Your task to perform on an android device: open app "Fetch Rewards" Image 0: 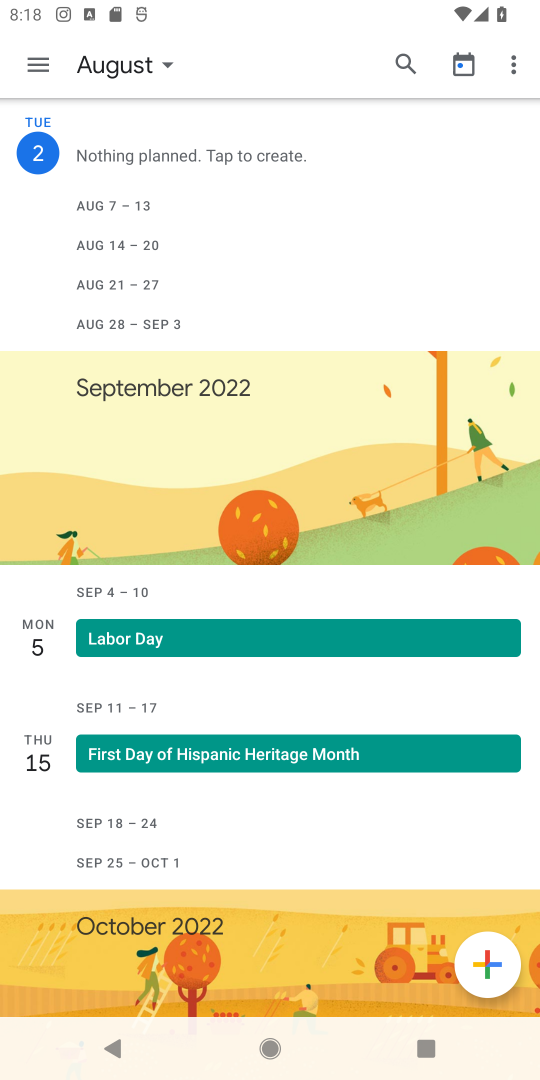
Step 0: press home button
Your task to perform on an android device: open app "Fetch Rewards" Image 1: 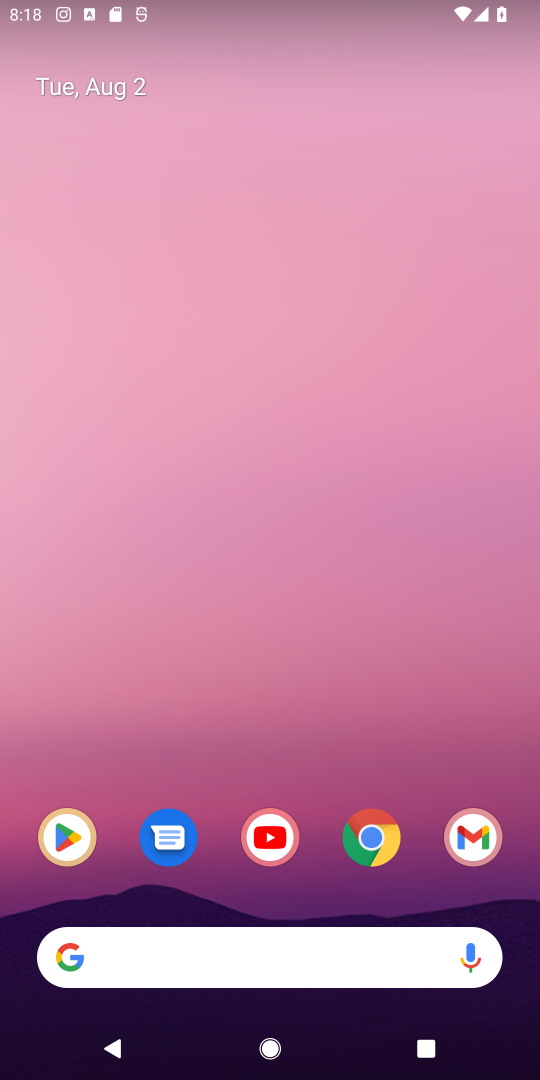
Step 1: click (78, 843)
Your task to perform on an android device: open app "Fetch Rewards" Image 2: 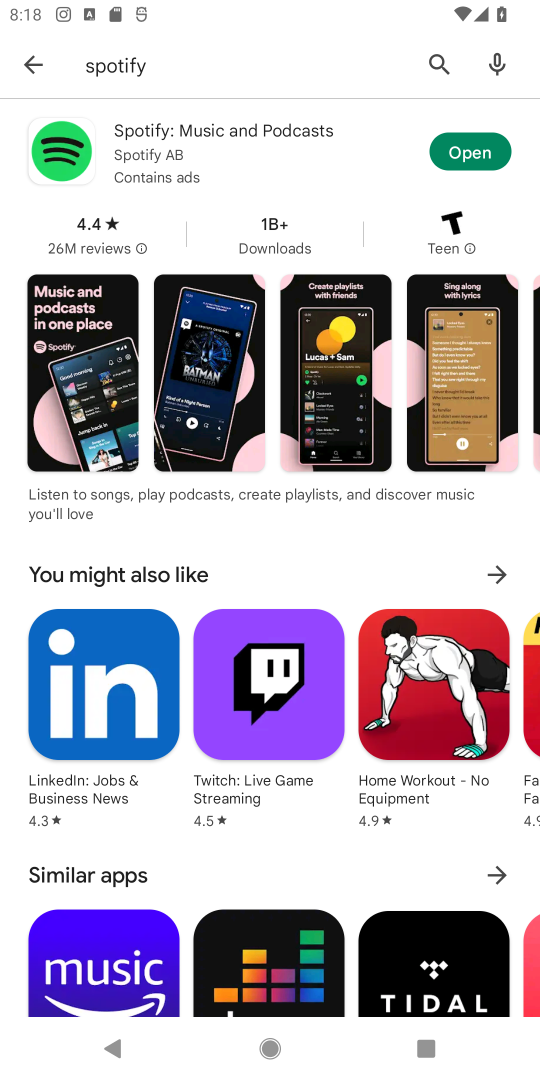
Step 2: click (422, 62)
Your task to perform on an android device: open app "Fetch Rewards" Image 3: 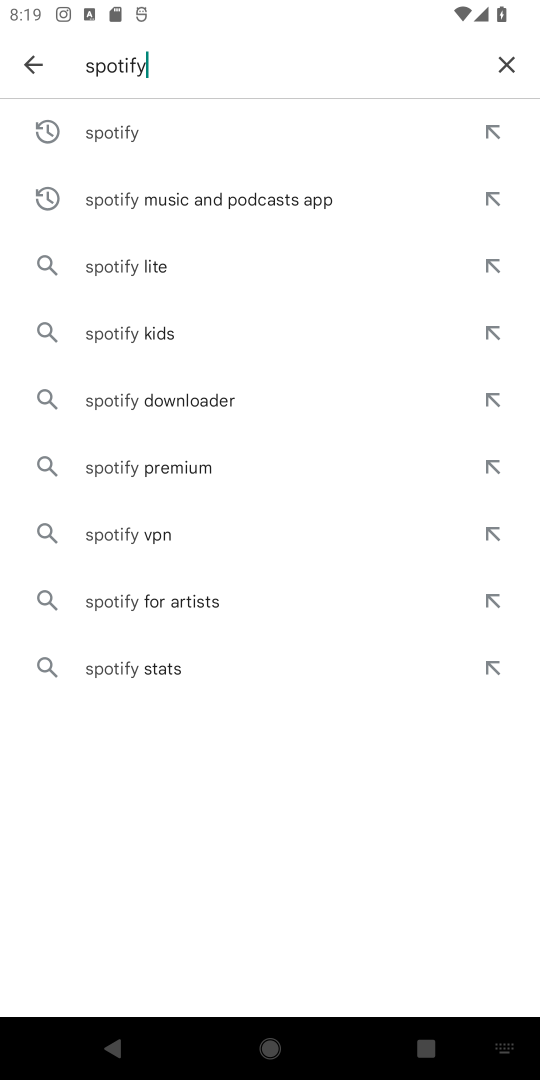
Step 3: click (514, 78)
Your task to perform on an android device: open app "Fetch Rewards" Image 4: 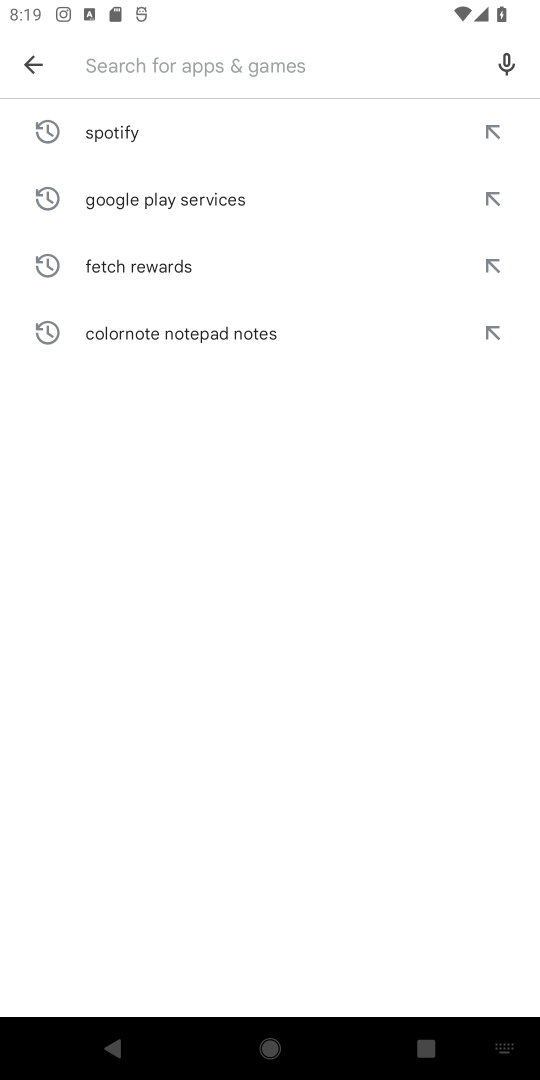
Step 4: type "Fetch Rewards"
Your task to perform on an android device: open app "Fetch Rewards" Image 5: 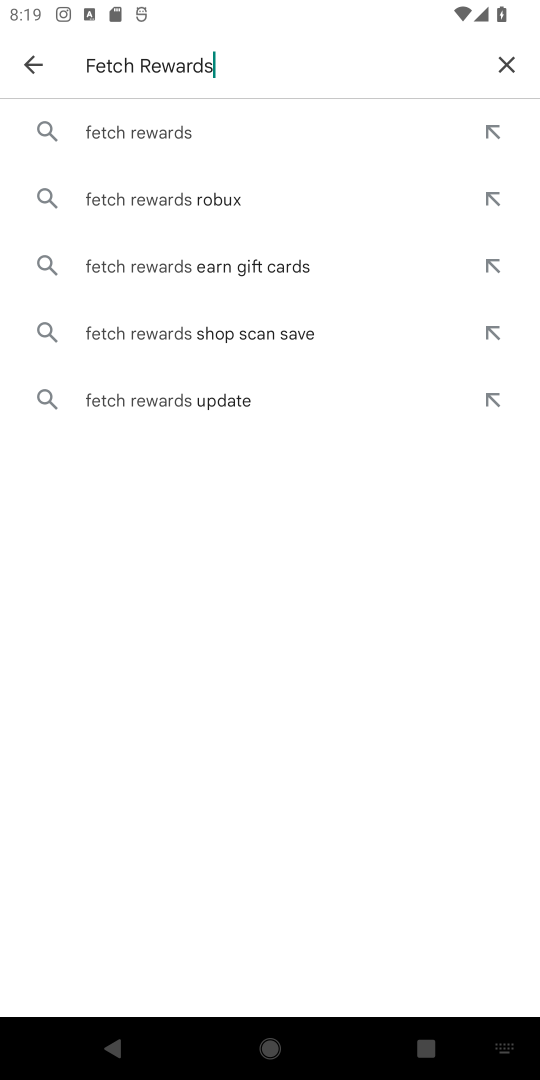
Step 5: click (137, 140)
Your task to perform on an android device: open app "Fetch Rewards" Image 6: 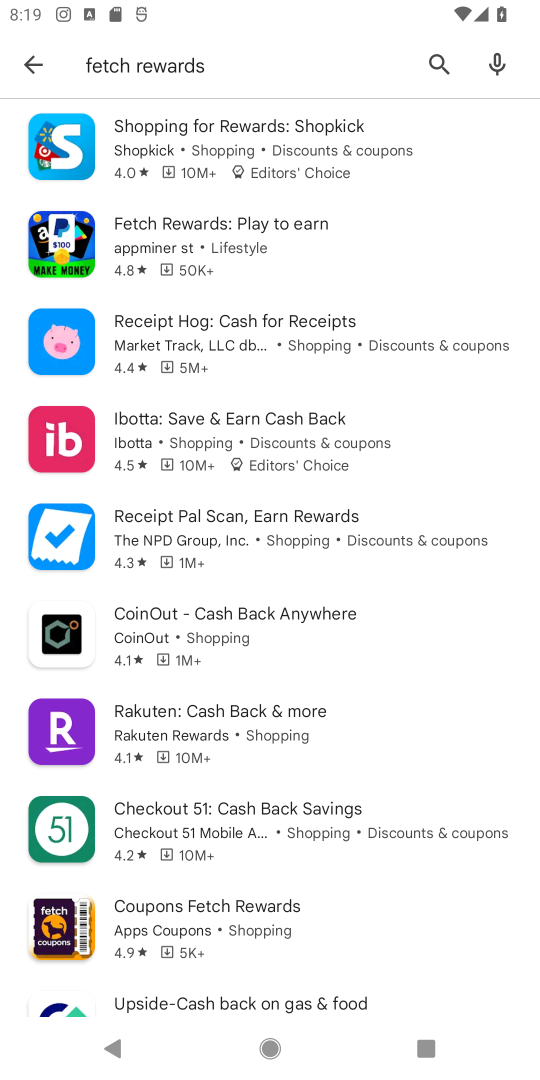
Step 6: click (125, 243)
Your task to perform on an android device: open app "Fetch Rewards" Image 7: 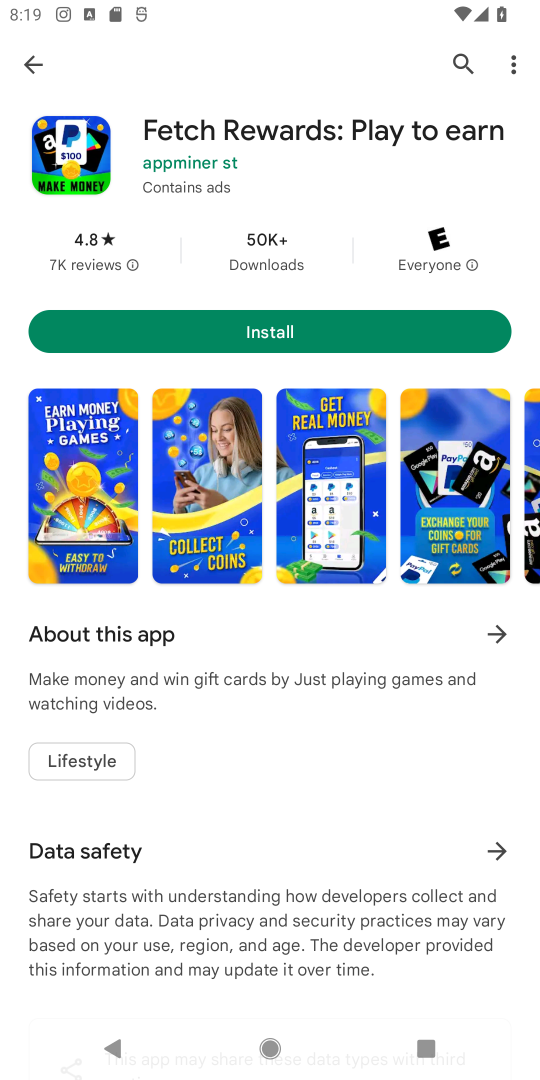
Step 7: task complete